Your task to perform on an android device: Open Google Chrome Image 0: 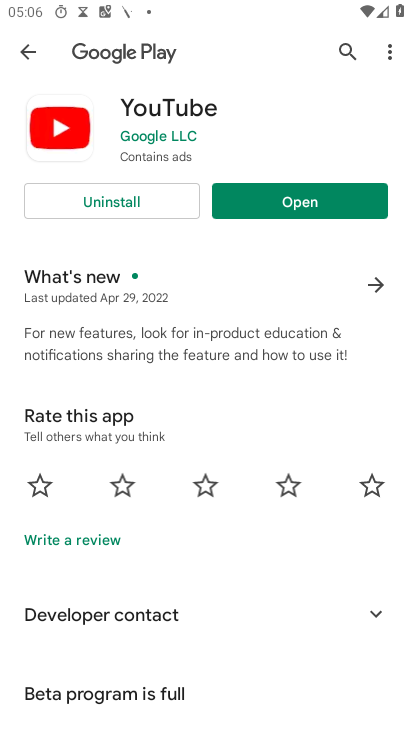
Step 0: press home button
Your task to perform on an android device: Open Google Chrome Image 1: 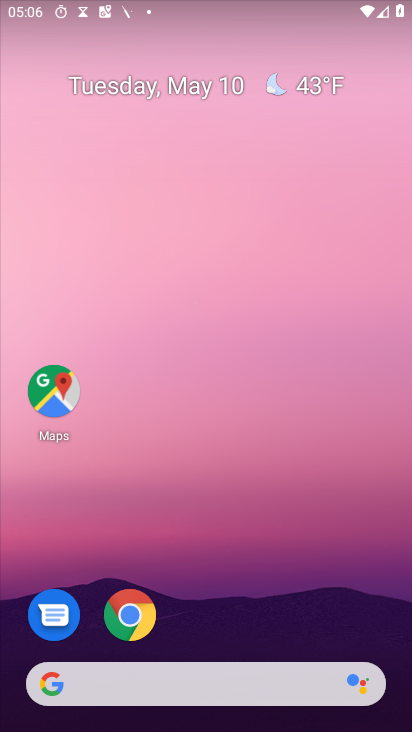
Step 1: drag from (333, 658) to (281, 78)
Your task to perform on an android device: Open Google Chrome Image 2: 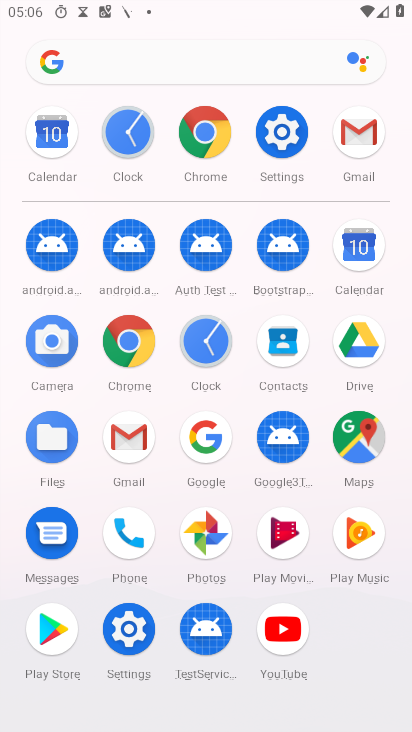
Step 2: click (107, 340)
Your task to perform on an android device: Open Google Chrome Image 3: 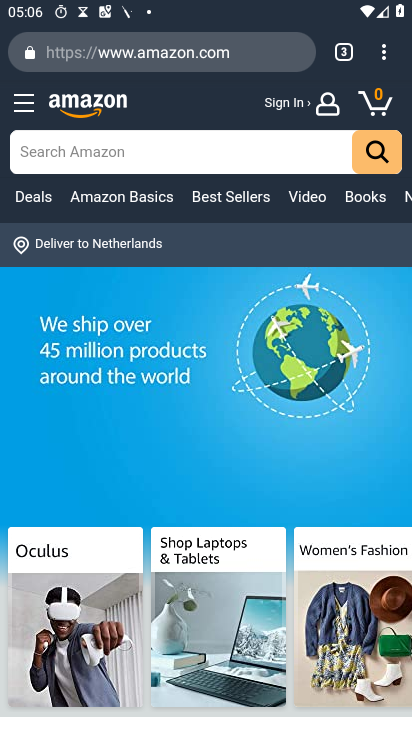
Step 3: task complete